Your task to perform on an android device: What's on my calendar today? Image 0: 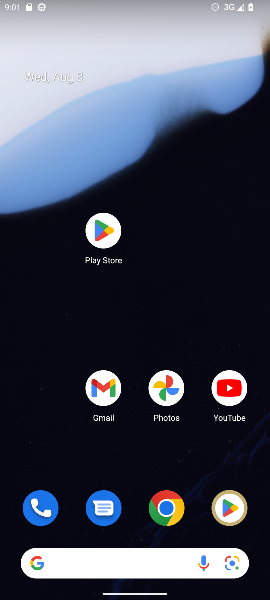
Step 0: drag from (133, 525) to (104, 22)
Your task to perform on an android device: What's on my calendar today? Image 1: 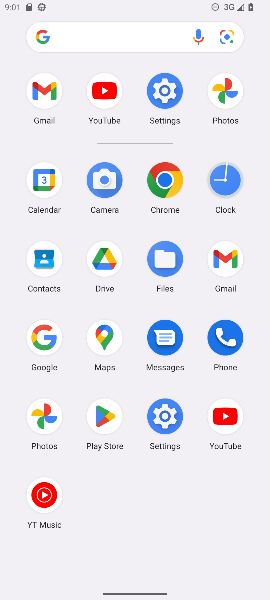
Step 1: click (48, 192)
Your task to perform on an android device: What's on my calendar today? Image 2: 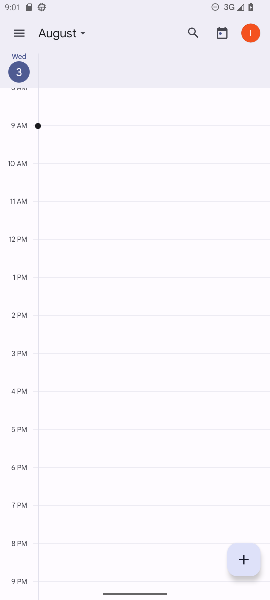
Step 2: click (219, 30)
Your task to perform on an android device: What's on my calendar today? Image 3: 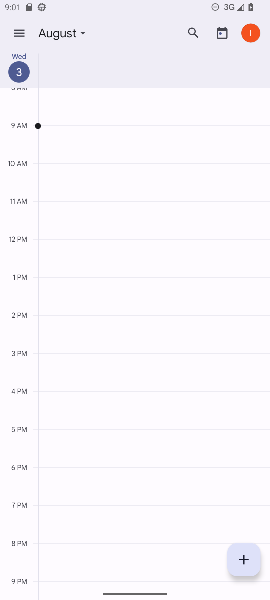
Step 3: click (17, 76)
Your task to perform on an android device: What's on my calendar today? Image 4: 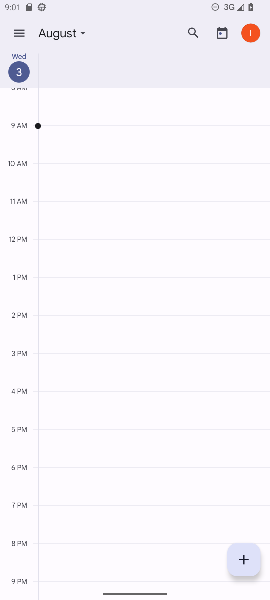
Step 4: task complete